Your task to perform on an android device: When is my next appointment? Image 0: 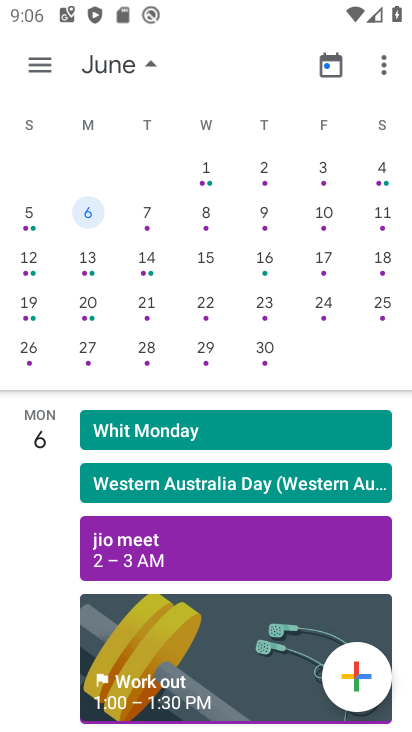
Step 0: press back button
Your task to perform on an android device: When is my next appointment? Image 1: 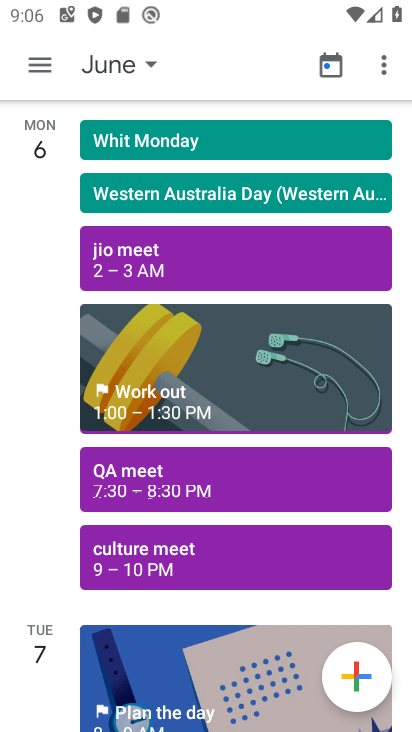
Step 1: press back button
Your task to perform on an android device: When is my next appointment? Image 2: 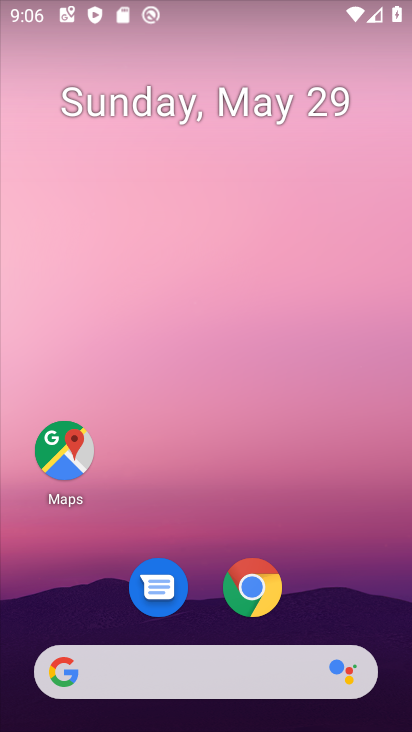
Step 2: drag from (200, 513) to (282, 11)
Your task to perform on an android device: When is my next appointment? Image 3: 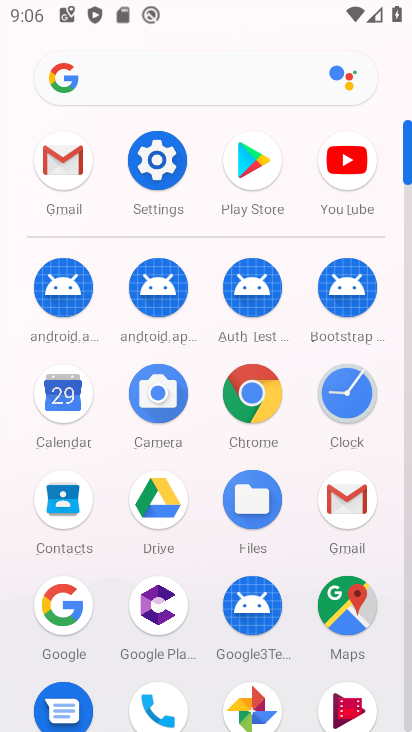
Step 3: click (80, 404)
Your task to perform on an android device: When is my next appointment? Image 4: 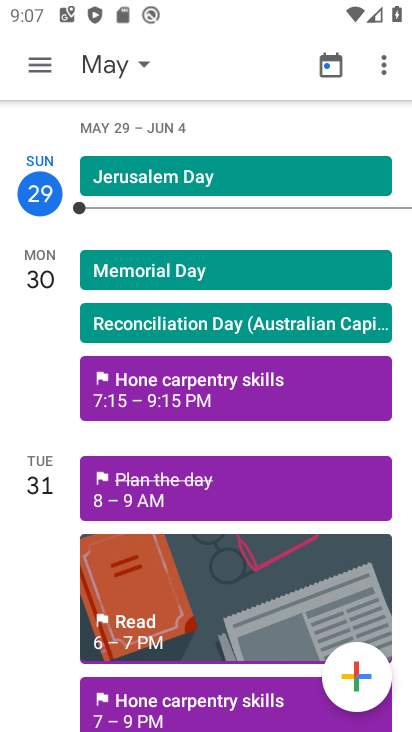
Step 4: drag from (200, 648) to (309, 154)
Your task to perform on an android device: When is my next appointment? Image 5: 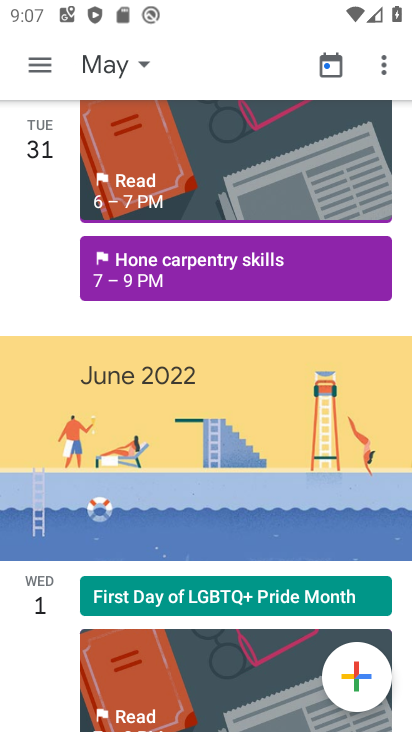
Step 5: drag from (215, 619) to (331, 18)
Your task to perform on an android device: When is my next appointment? Image 6: 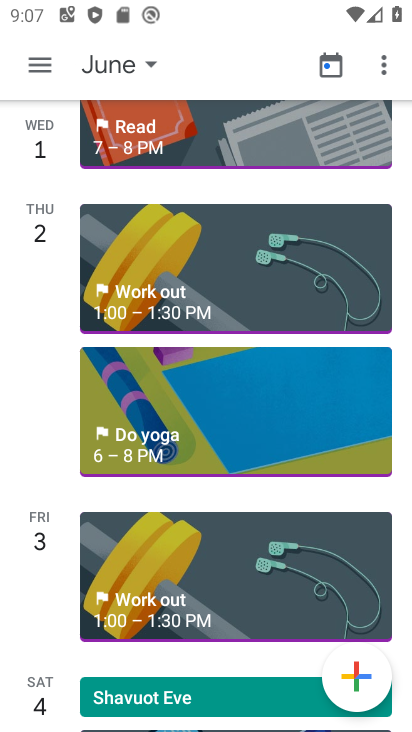
Step 6: drag from (240, 622) to (272, 113)
Your task to perform on an android device: When is my next appointment? Image 7: 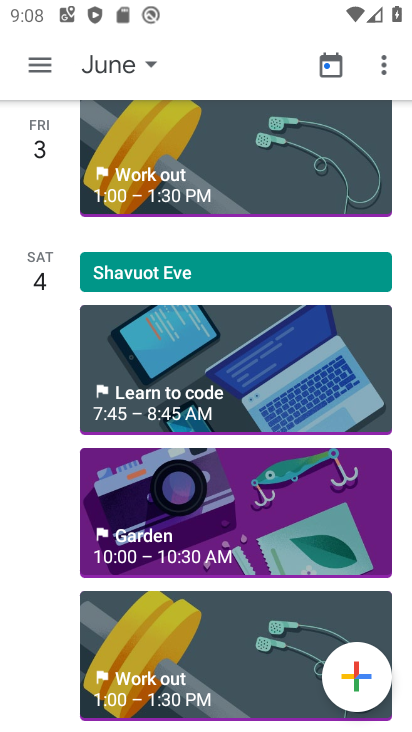
Step 7: drag from (191, 625) to (276, 34)
Your task to perform on an android device: When is my next appointment? Image 8: 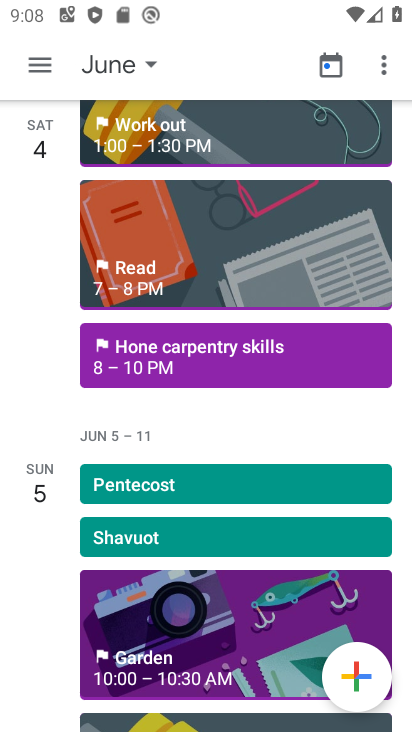
Step 8: drag from (242, 619) to (311, 97)
Your task to perform on an android device: When is my next appointment? Image 9: 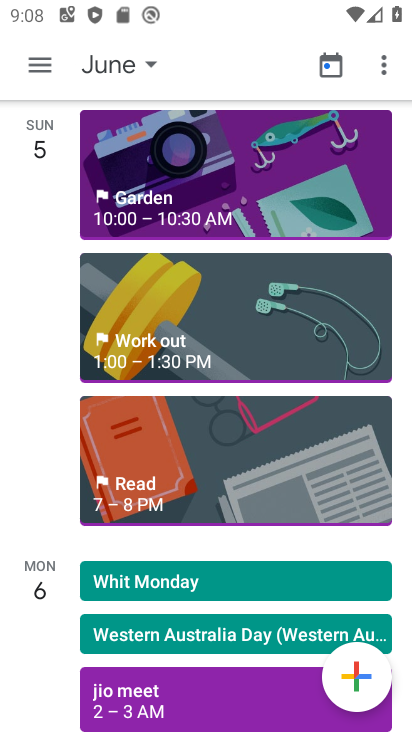
Step 9: click (167, 707)
Your task to perform on an android device: When is my next appointment? Image 10: 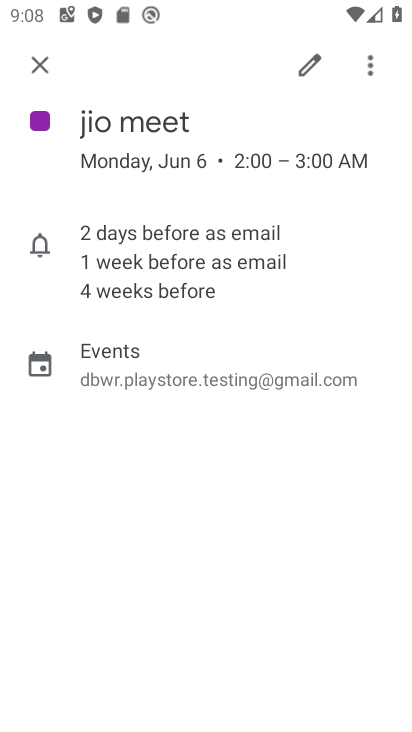
Step 10: task complete